Your task to perform on an android device: turn off improve location accuracy Image 0: 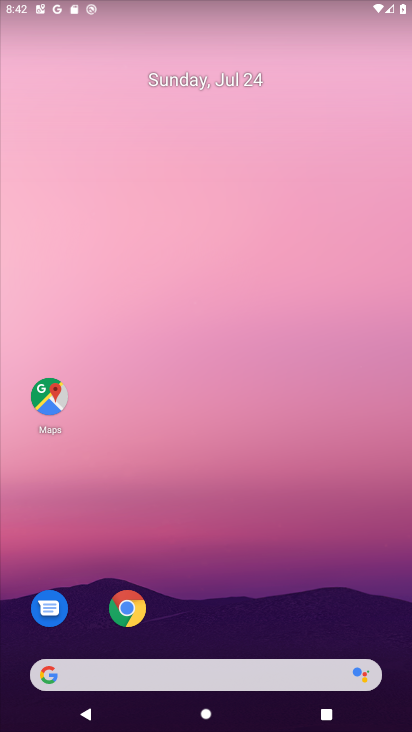
Step 0: drag from (217, 603) to (270, 244)
Your task to perform on an android device: turn off improve location accuracy Image 1: 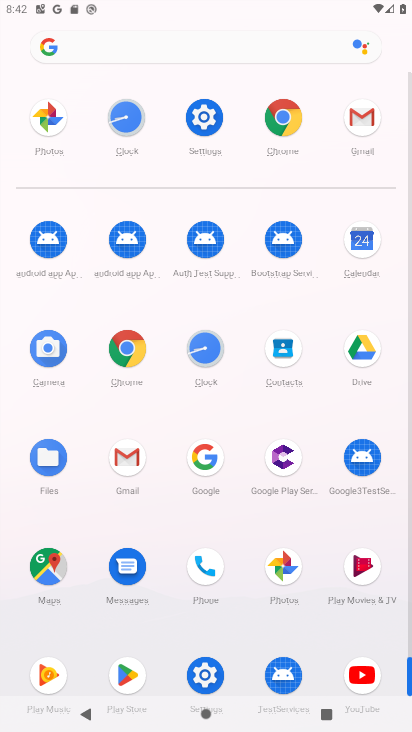
Step 1: click (194, 120)
Your task to perform on an android device: turn off improve location accuracy Image 2: 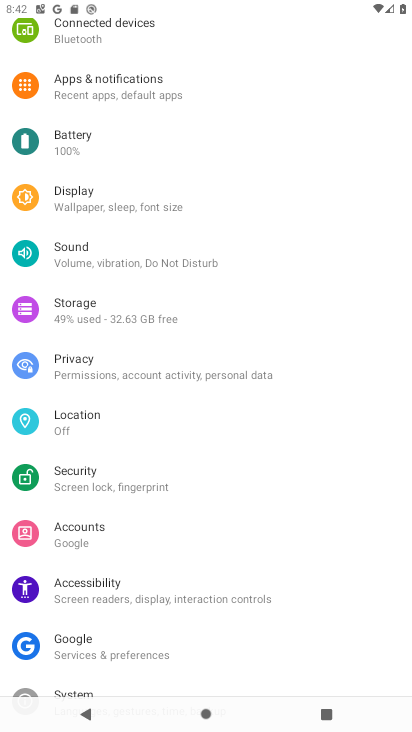
Step 2: click (83, 433)
Your task to perform on an android device: turn off improve location accuracy Image 3: 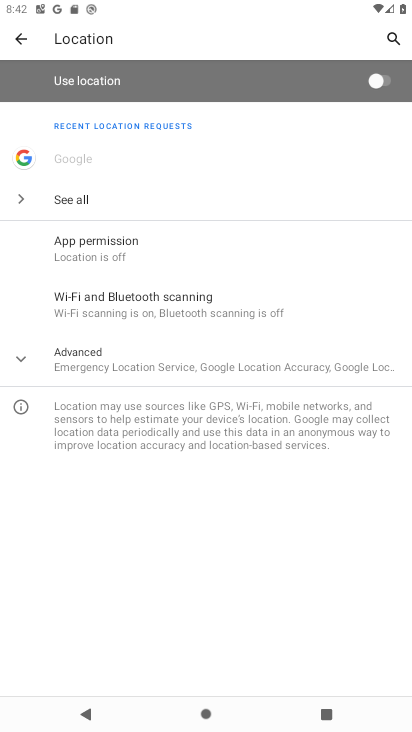
Step 3: click (133, 365)
Your task to perform on an android device: turn off improve location accuracy Image 4: 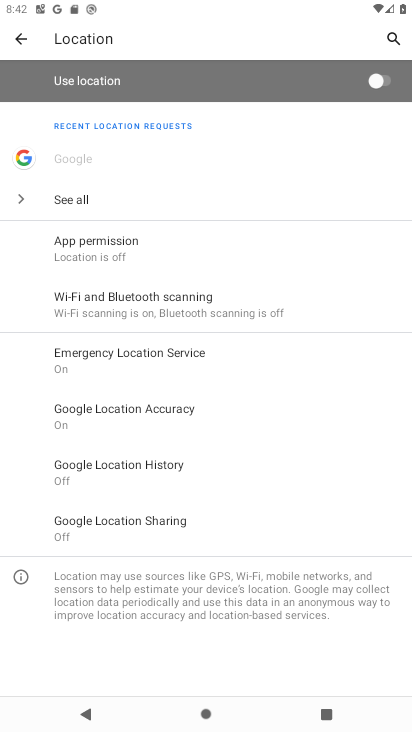
Step 4: click (301, 414)
Your task to perform on an android device: turn off improve location accuracy Image 5: 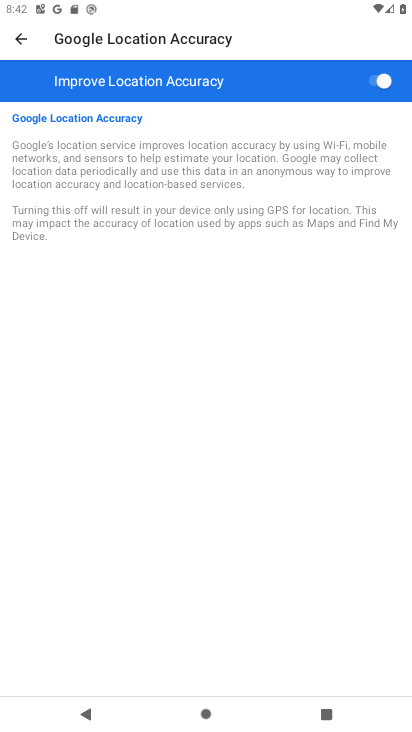
Step 5: click (383, 73)
Your task to perform on an android device: turn off improve location accuracy Image 6: 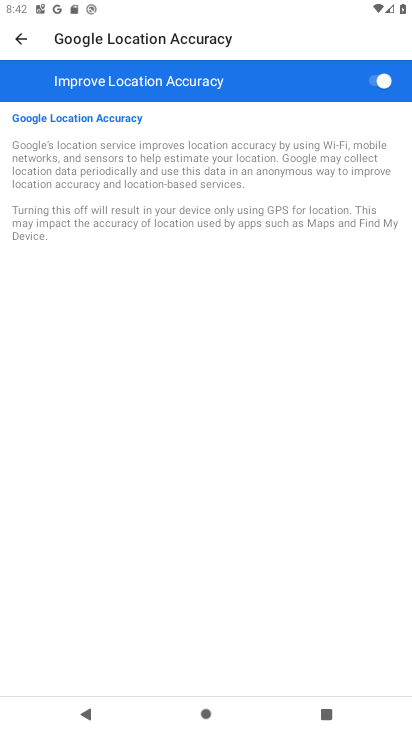
Step 6: click (383, 73)
Your task to perform on an android device: turn off improve location accuracy Image 7: 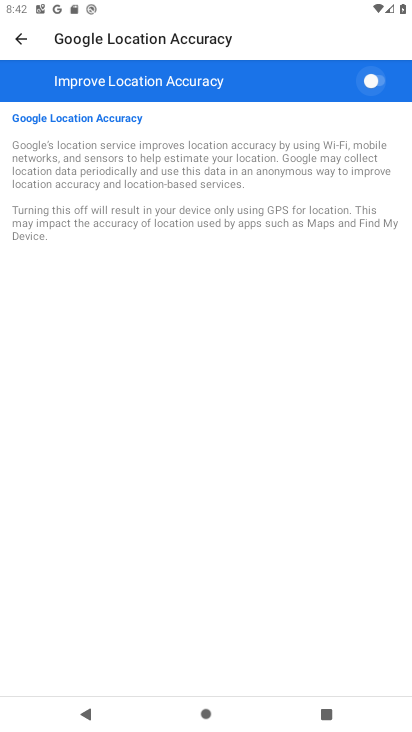
Step 7: click (383, 73)
Your task to perform on an android device: turn off improve location accuracy Image 8: 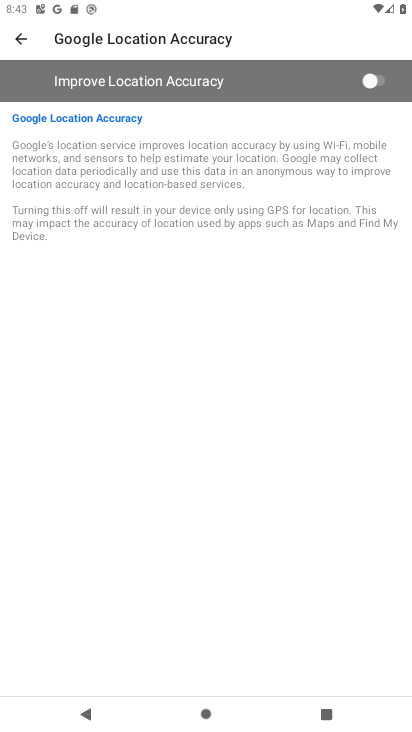
Step 8: click (383, 73)
Your task to perform on an android device: turn off improve location accuracy Image 9: 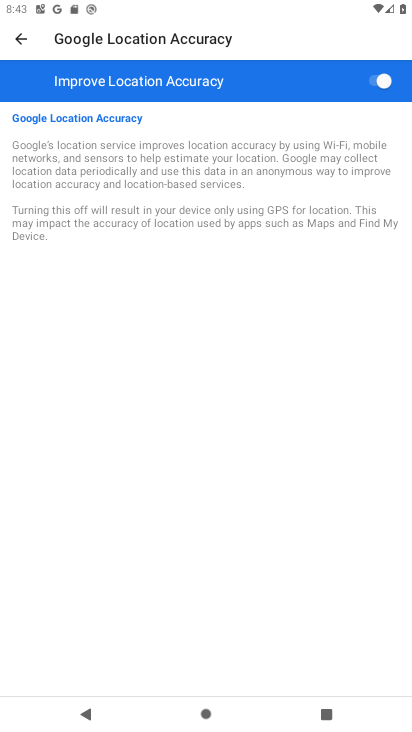
Step 9: click (377, 82)
Your task to perform on an android device: turn off improve location accuracy Image 10: 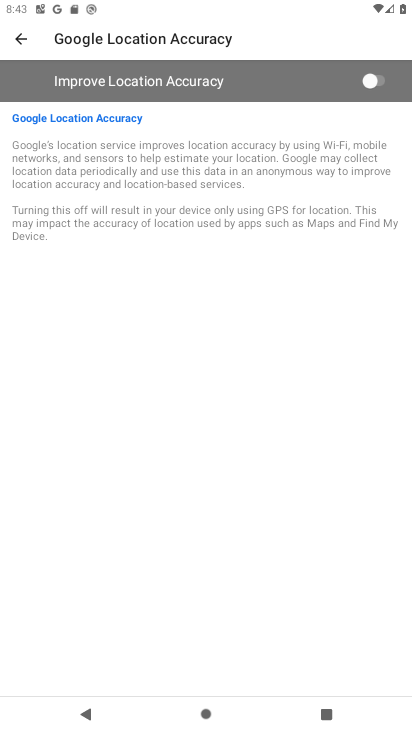
Step 10: task complete